Your task to perform on an android device: check storage Image 0: 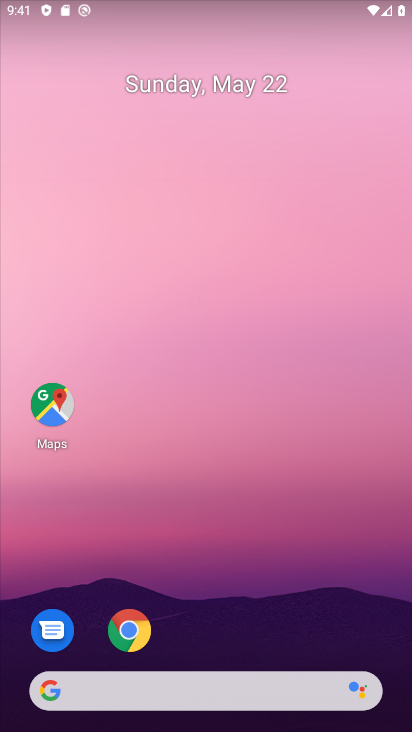
Step 0: drag from (393, 666) to (326, 206)
Your task to perform on an android device: check storage Image 1: 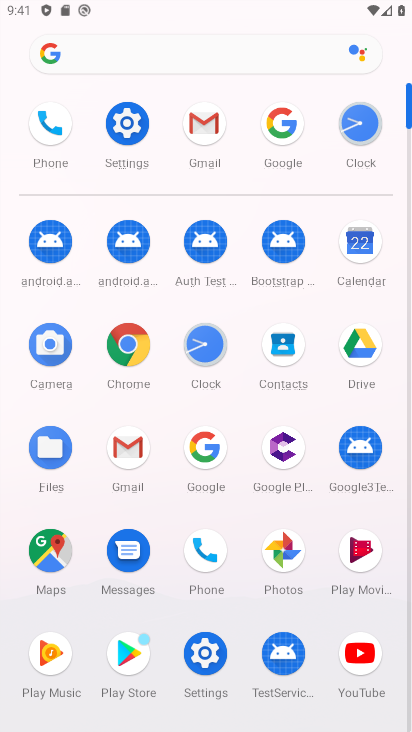
Step 1: click (135, 113)
Your task to perform on an android device: check storage Image 2: 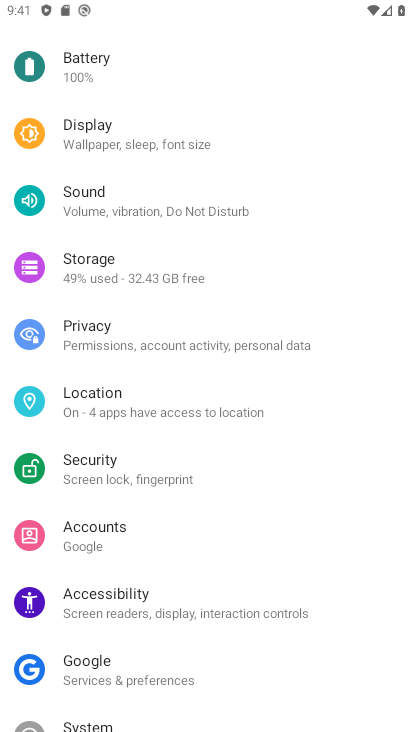
Step 2: click (103, 258)
Your task to perform on an android device: check storage Image 3: 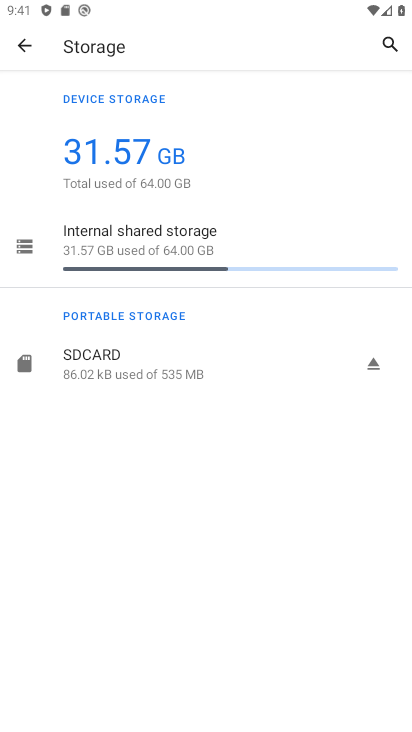
Step 3: task complete